Your task to perform on an android device: Open sound settings Image 0: 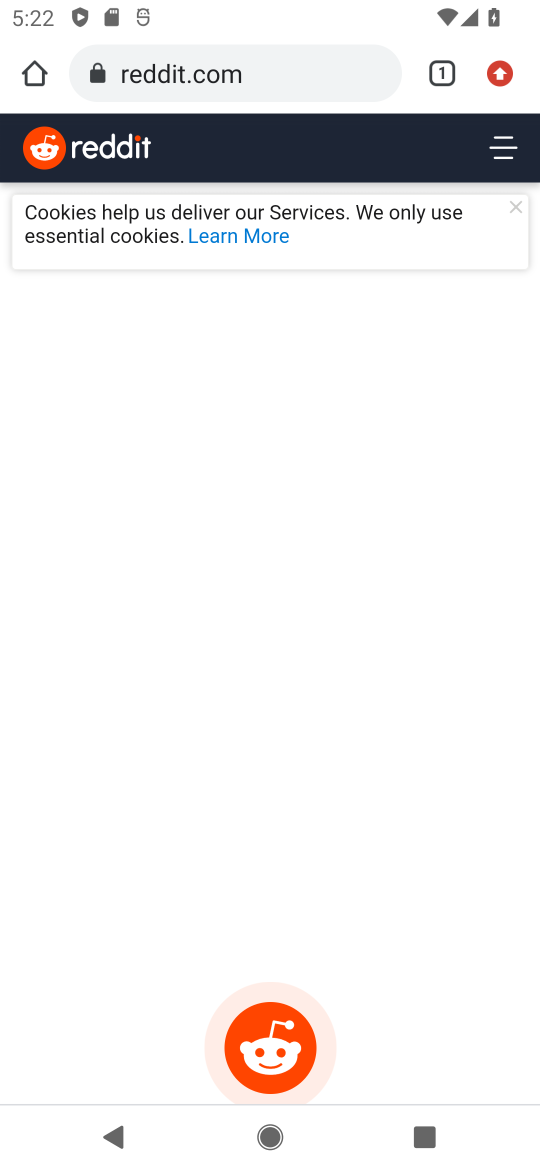
Step 0: press home button
Your task to perform on an android device: Open sound settings Image 1: 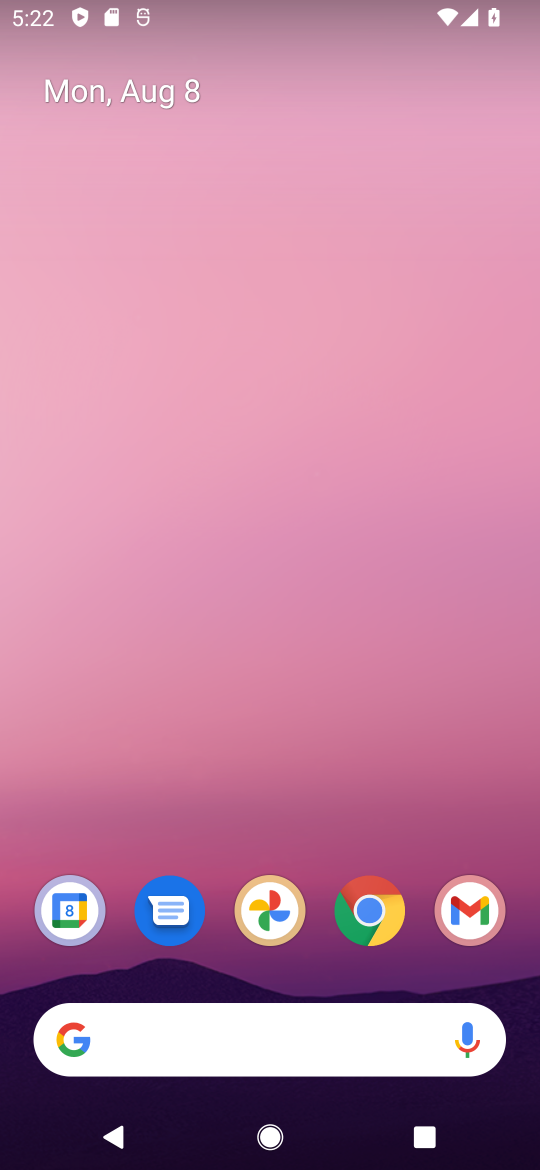
Step 1: drag from (219, 1037) to (163, 424)
Your task to perform on an android device: Open sound settings Image 2: 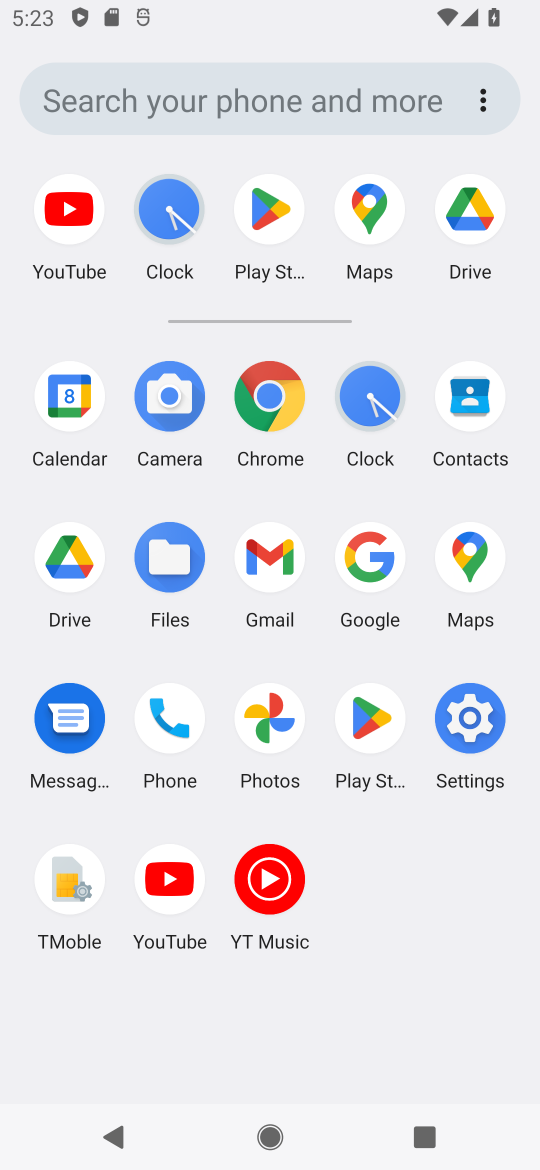
Step 2: click (470, 719)
Your task to perform on an android device: Open sound settings Image 3: 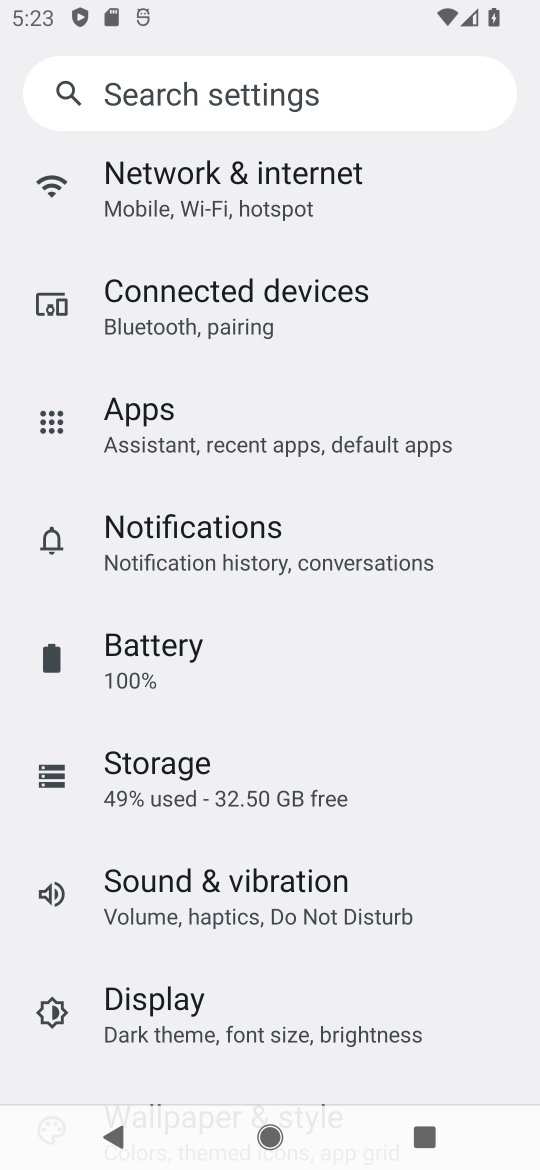
Step 3: drag from (242, 989) to (307, 849)
Your task to perform on an android device: Open sound settings Image 4: 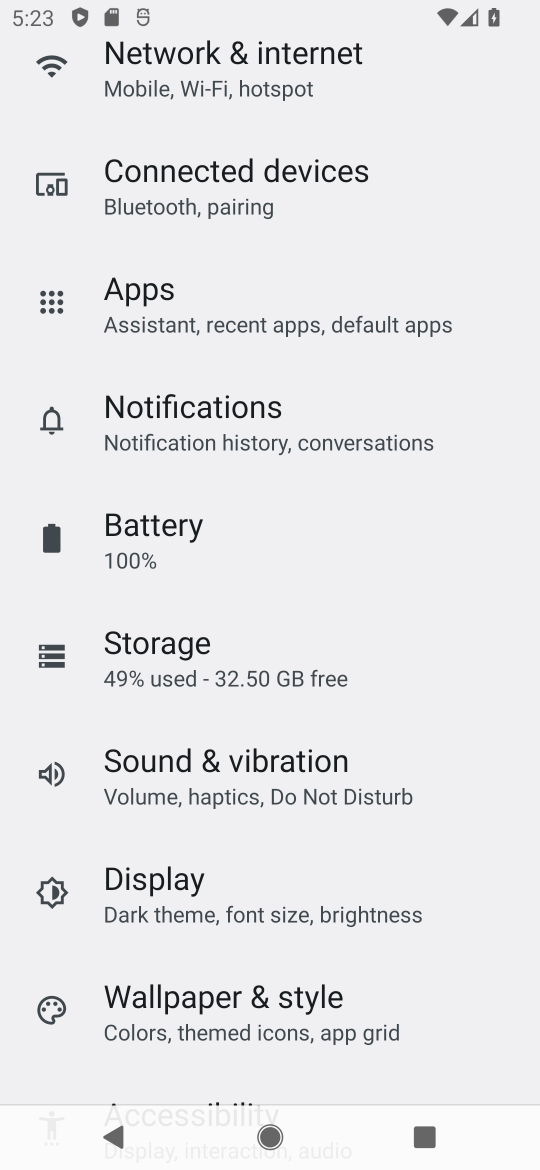
Step 4: click (317, 794)
Your task to perform on an android device: Open sound settings Image 5: 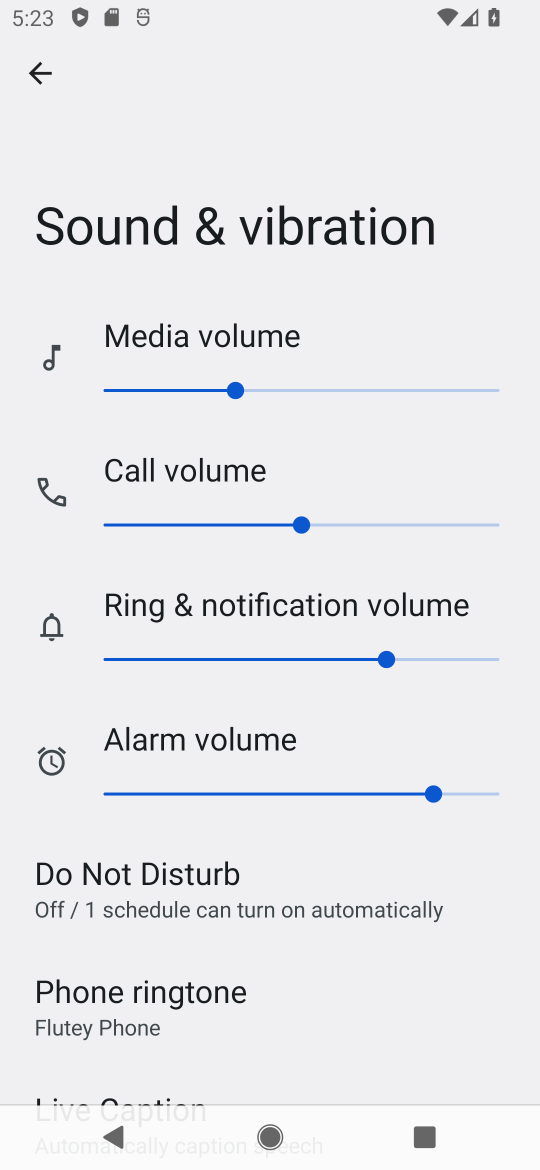
Step 5: task complete